Your task to perform on an android device: Open location settings Image 0: 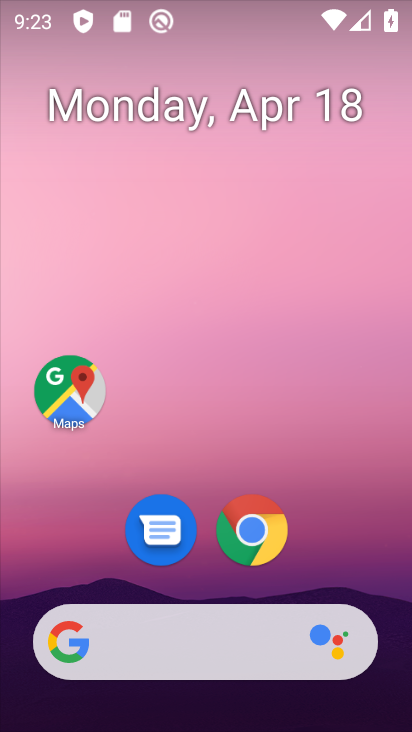
Step 0: drag from (337, 569) to (363, 3)
Your task to perform on an android device: Open location settings Image 1: 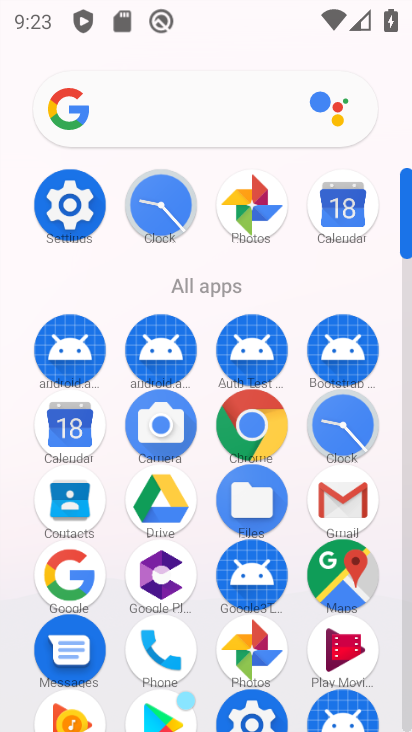
Step 1: click (60, 209)
Your task to perform on an android device: Open location settings Image 2: 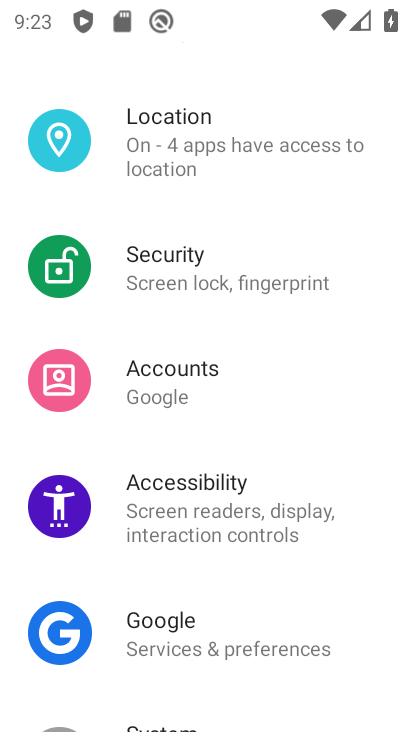
Step 2: click (180, 140)
Your task to perform on an android device: Open location settings Image 3: 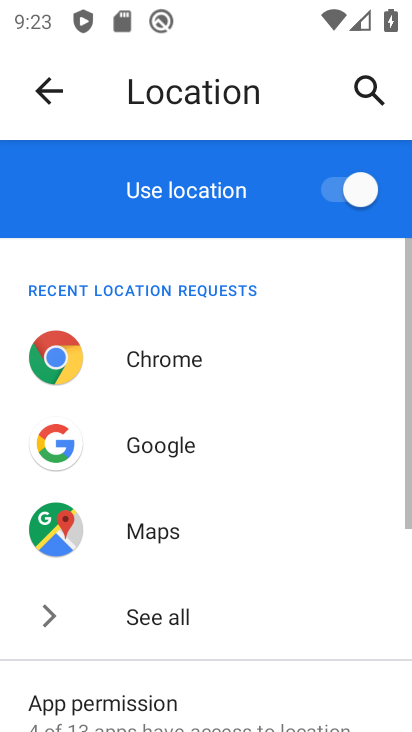
Step 3: task complete